Your task to perform on an android device: Go to Maps Image 0: 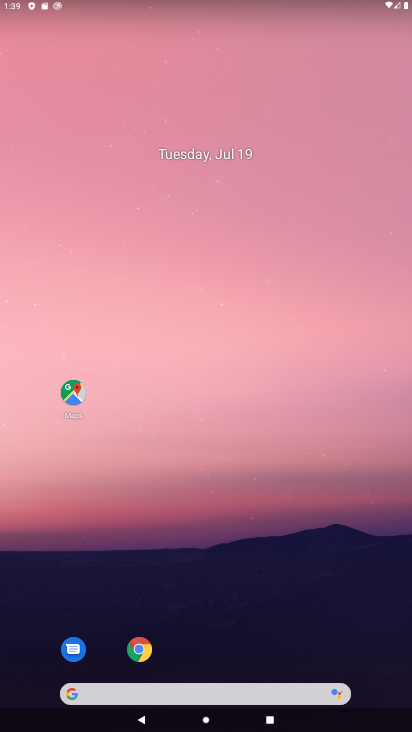
Step 0: click (76, 394)
Your task to perform on an android device: Go to Maps Image 1: 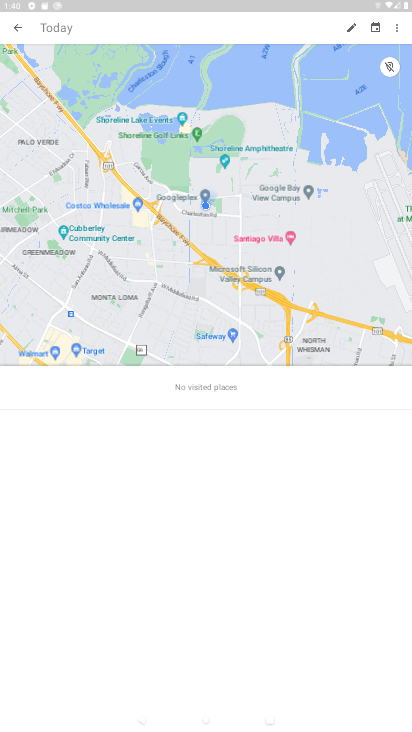
Step 1: task complete